Your task to perform on an android device: turn on location history Image 0: 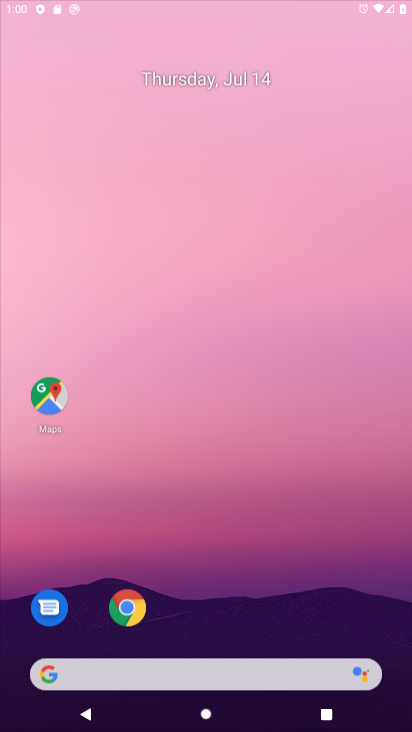
Step 0: click (301, 47)
Your task to perform on an android device: turn on location history Image 1: 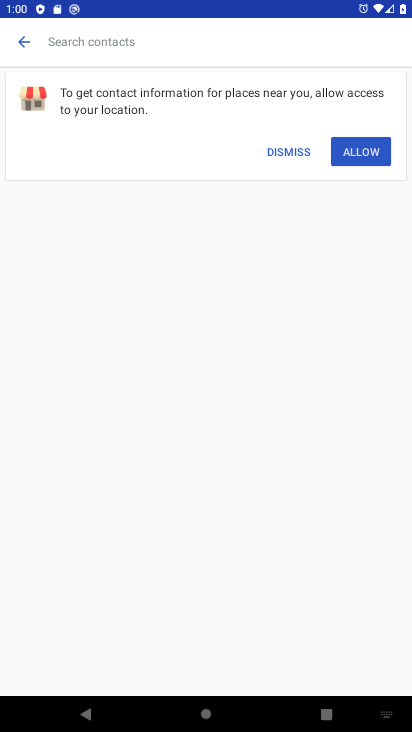
Step 1: press home button
Your task to perform on an android device: turn on location history Image 2: 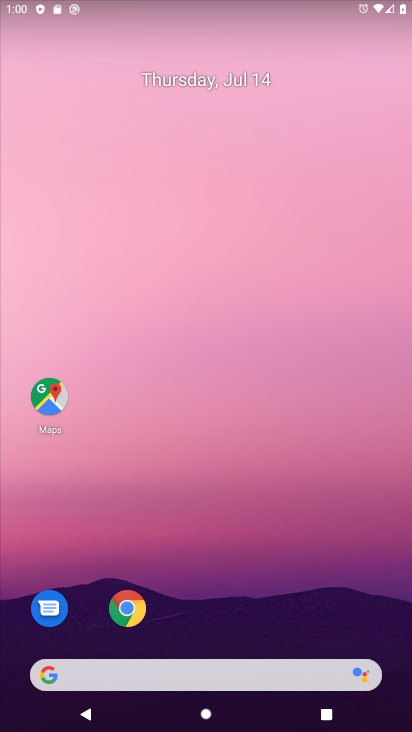
Step 2: drag from (270, 623) to (250, 64)
Your task to perform on an android device: turn on location history Image 3: 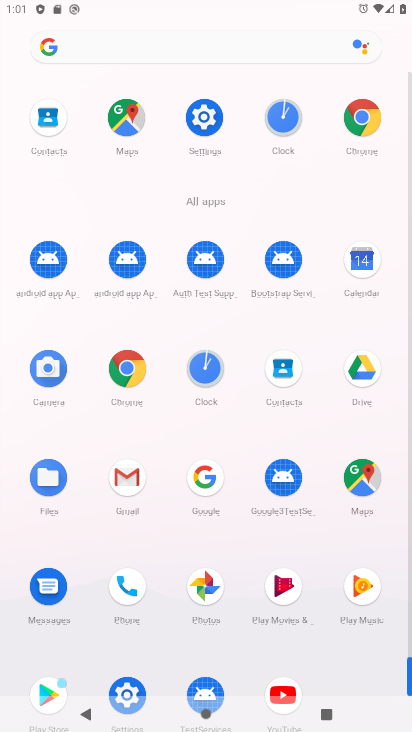
Step 3: click (352, 477)
Your task to perform on an android device: turn on location history Image 4: 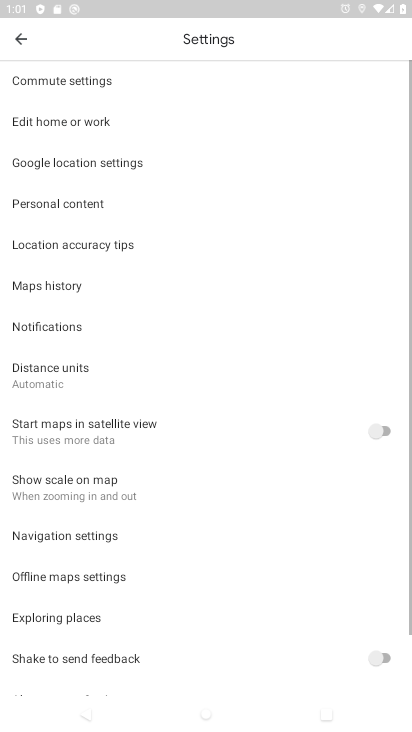
Step 4: click (22, 33)
Your task to perform on an android device: turn on location history Image 5: 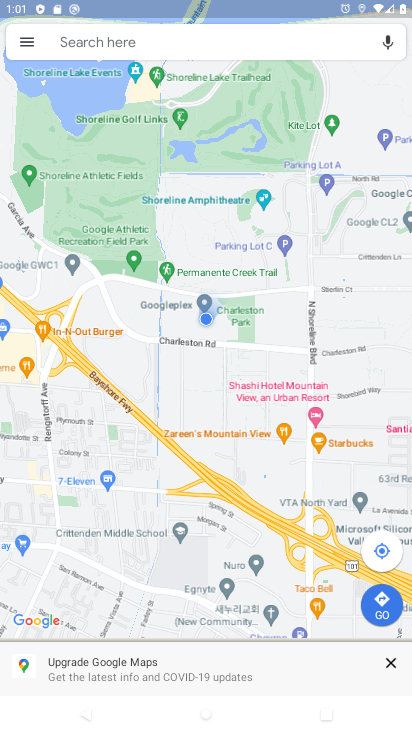
Step 5: click (26, 33)
Your task to perform on an android device: turn on location history Image 6: 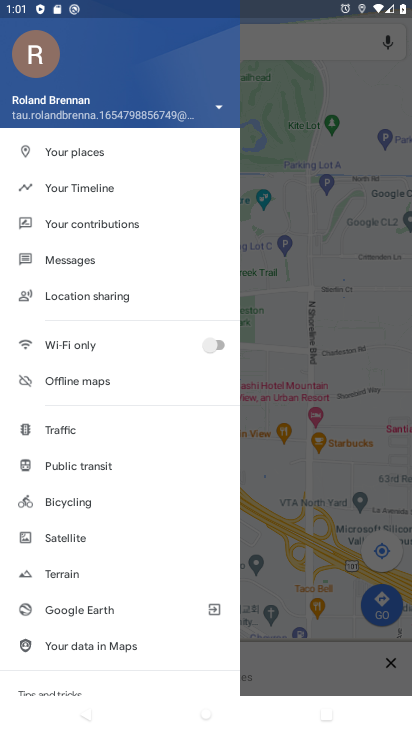
Step 6: click (82, 182)
Your task to perform on an android device: turn on location history Image 7: 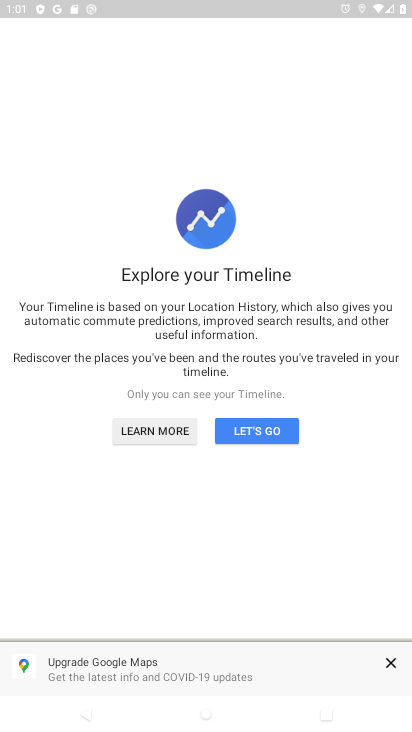
Step 7: click (237, 435)
Your task to perform on an android device: turn on location history Image 8: 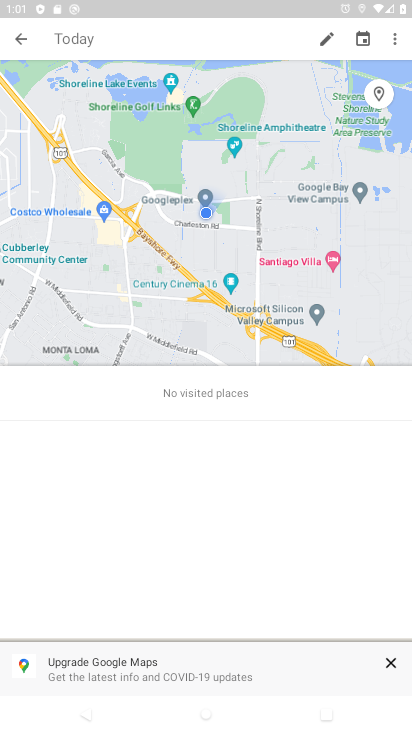
Step 8: click (396, 37)
Your task to perform on an android device: turn on location history Image 9: 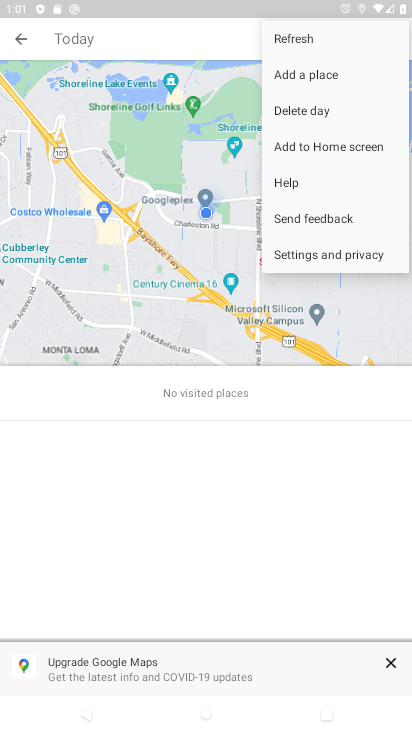
Step 9: click (282, 256)
Your task to perform on an android device: turn on location history Image 10: 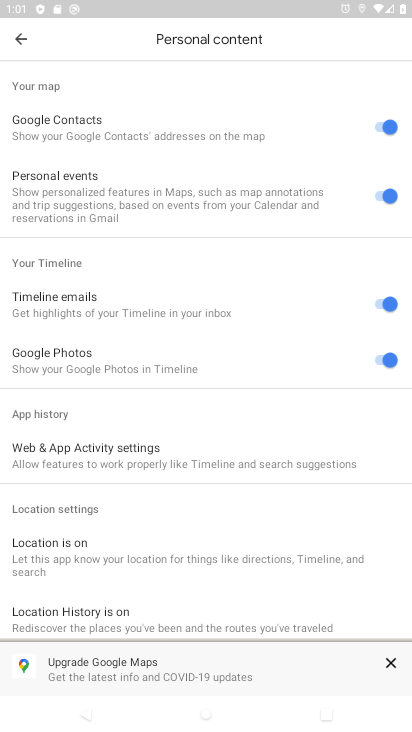
Step 10: drag from (81, 598) to (97, 289)
Your task to perform on an android device: turn on location history Image 11: 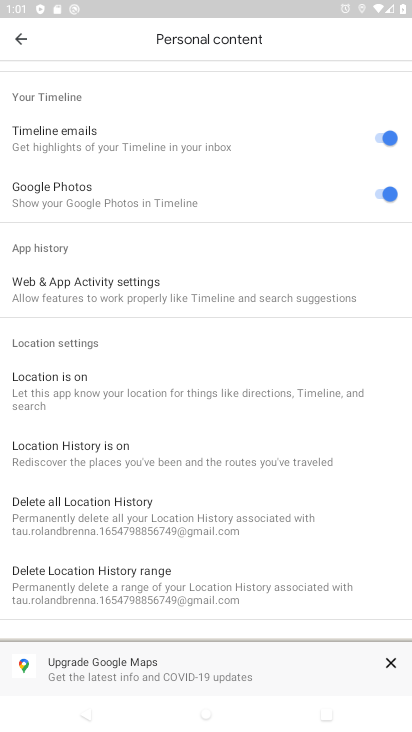
Step 11: click (51, 443)
Your task to perform on an android device: turn on location history Image 12: 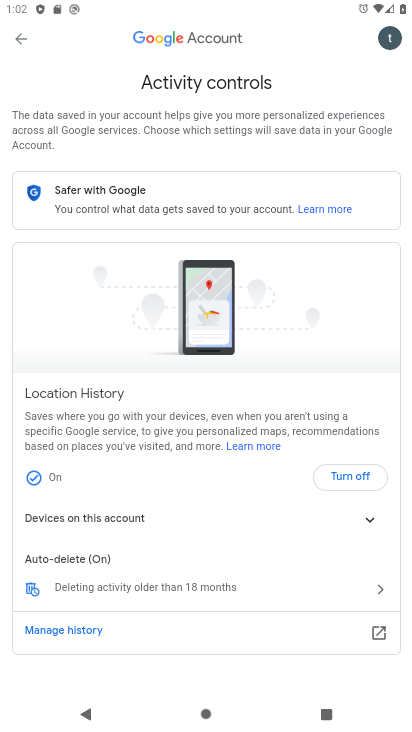
Step 12: task complete